Your task to perform on an android device: Open Google Maps and go to "Timeline" Image 0: 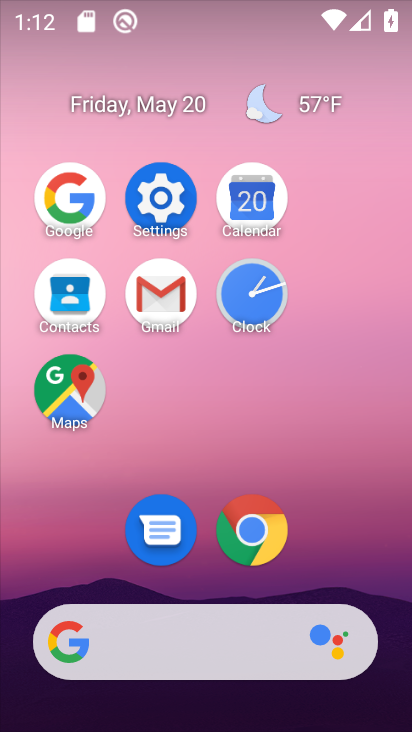
Step 0: click (77, 403)
Your task to perform on an android device: Open Google Maps and go to "Timeline" Image 1: 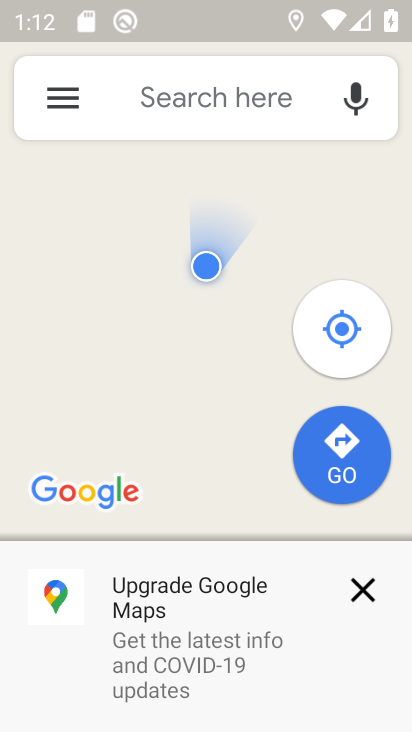
Step 1: click (67, 112)
Your task to perform on an android device: Open Google Maps and go to "Timeline" Image 2: 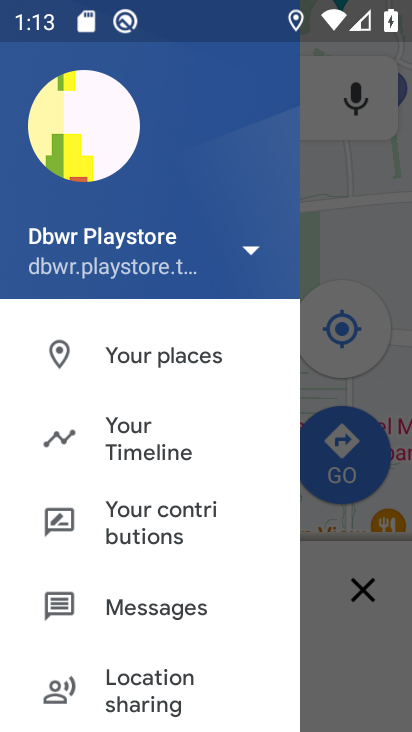
Step 2: click (175, 450)
Your task to perform on an android device: Open Google Maps and go to "Timeline" Image 3: 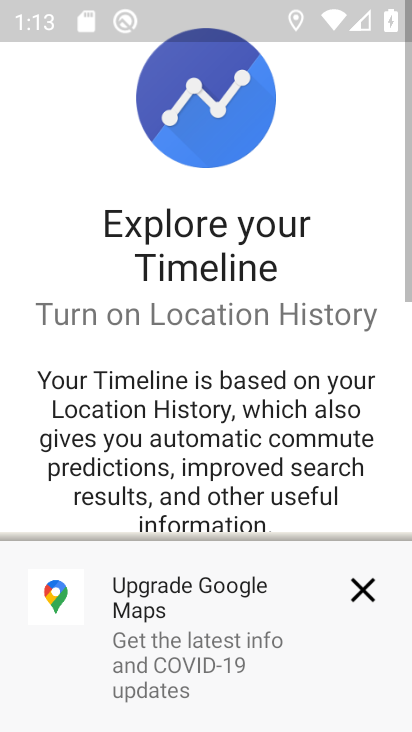
Step 3: task complete